Your task to perform on an android device: Open the calendar app, open the side menu, and click the "Day" option Image 0: 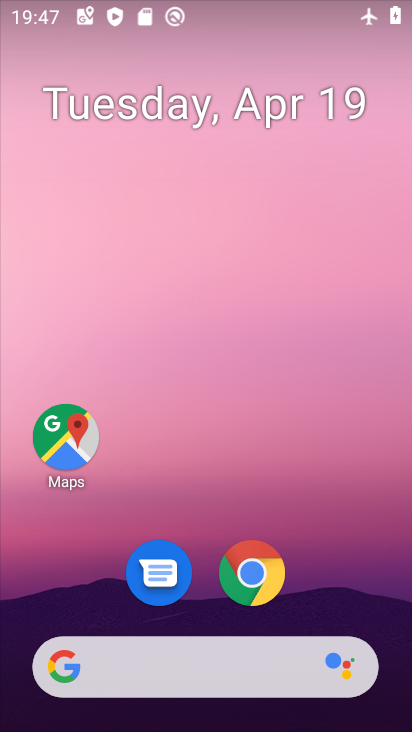
Step 0: drag from (380, 575) to (340, 6)
Your task to perform on an android device: Open the calendar app, open the side menu, and click the "Day" option Image 1: 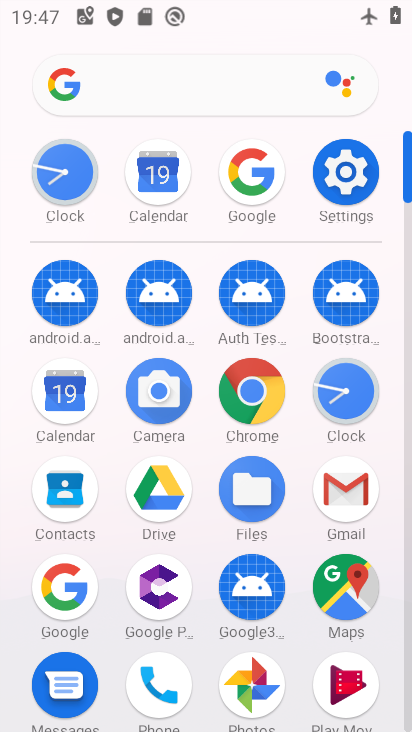
Step 1: click (65, 398)
Your task to perform on an android device: Open the calendar app, open the side menu, and click the "Day" option Image 2: 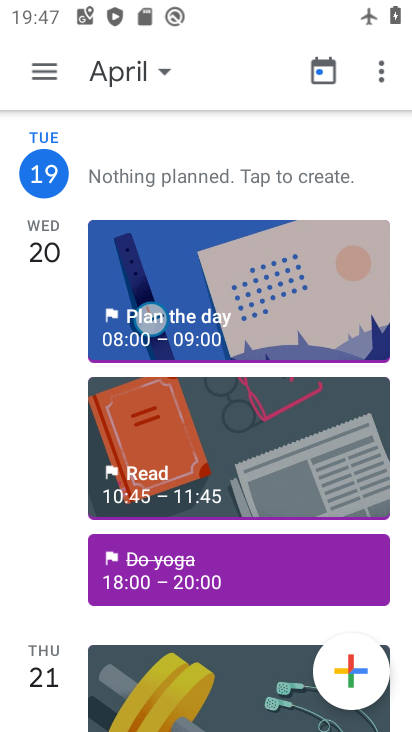
Step 2: click (41, 54)
Your task to perform on an android device: Open the calendar app, open the side menu, and click the "Day" option Image 3: 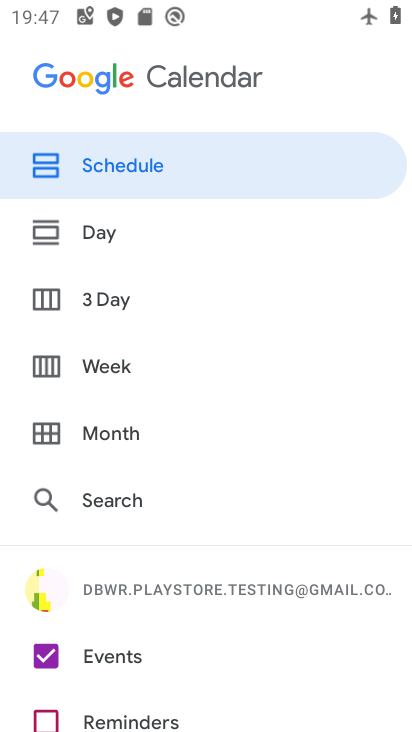
Step 3: click (79, 233)
Your task to perform on an android device: Open the calendar app, open the side menu, and click the "Day" option Image 4: 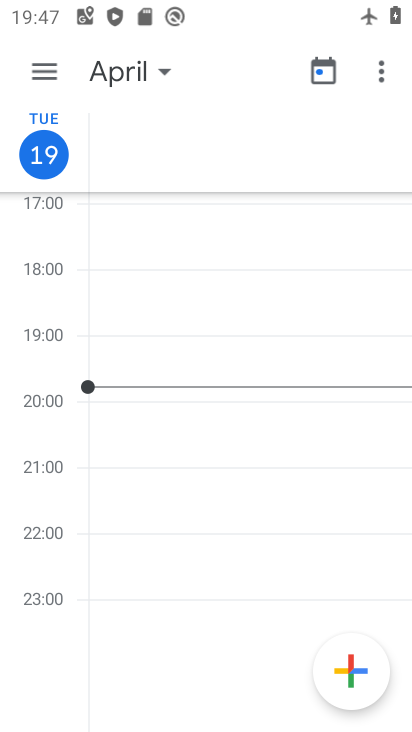
Step 4: task complete